Your task to perform on an android device: When is my next appointment? Image 0: 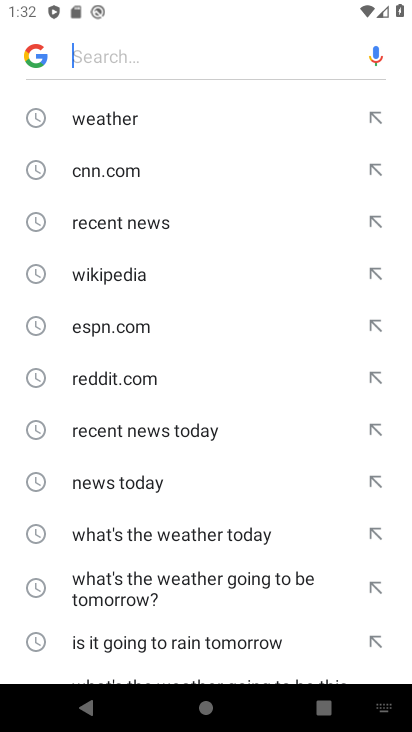
Step 0: press home button
Your task to perform on an android device: When is my next appointment? Image 1: 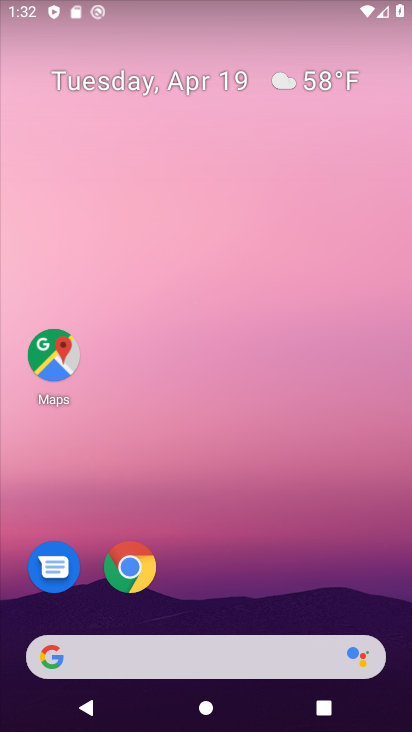
Step 1: drag from (333, 594) to (326, 94)
Your task to perform on an android device: When is my next appointment? Image 2: 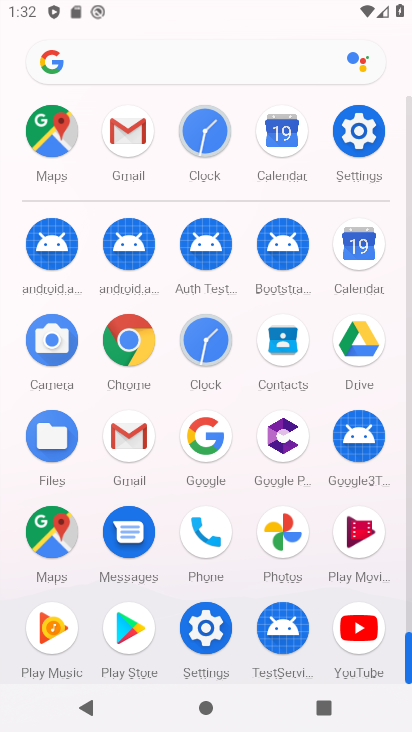
Step 2: click (360, 242)
Your task to perform on an android device: When is my next appointment? Image 3: 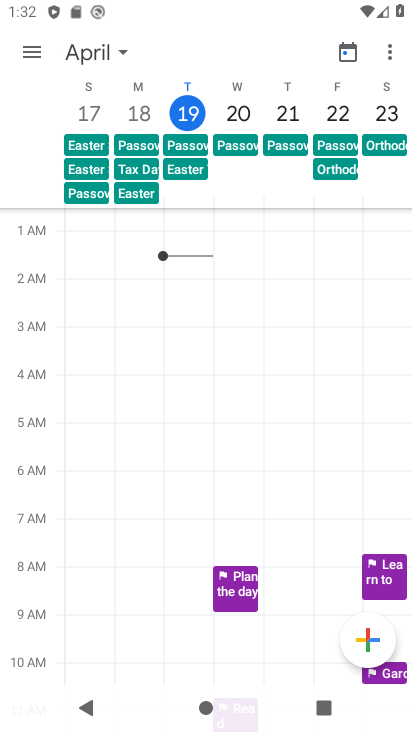
Step 3: click (25, 51)
Your task to perform on an android device: When is my next appointment? Image 4: 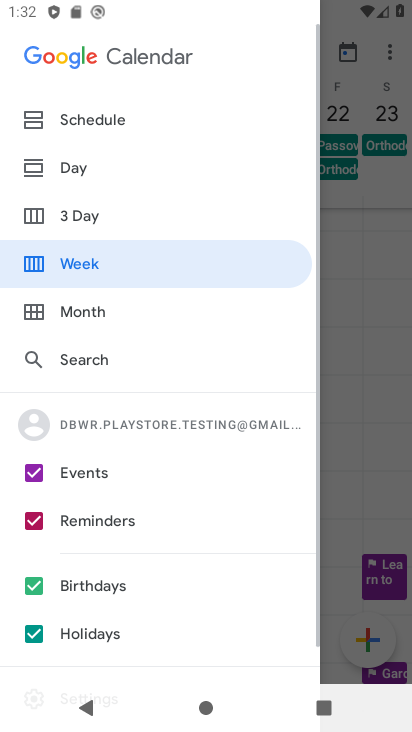
Step 4: drag from (144, 494) to (185, 213)
Your task to perform on an android device: When is my next appointment? Image 5: 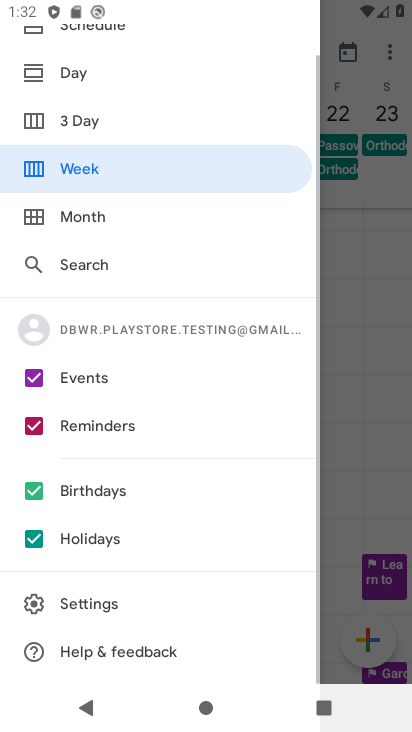
Step 5: drag from (184, 214) to (111, 534)
Your task to perform on an android device: When is my next appointment? Image 6: 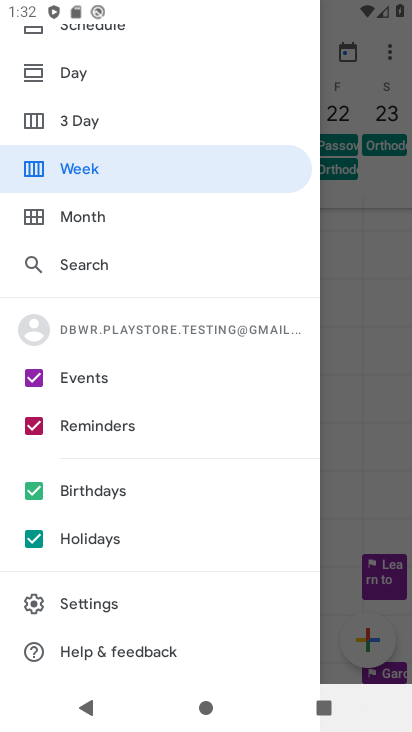
Step 6: click (376, 423)
Your task to perform on an android device: When is my next appointment? Image 7: 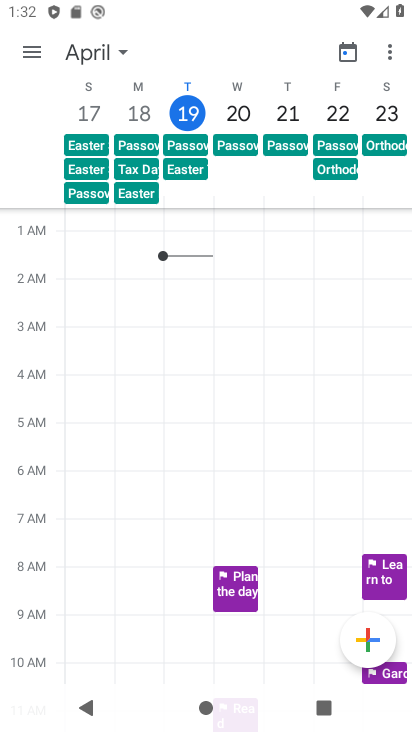
Step 7: task complete